Your task to perform on an android device: What's on my calendar tomorrow? Image 0: 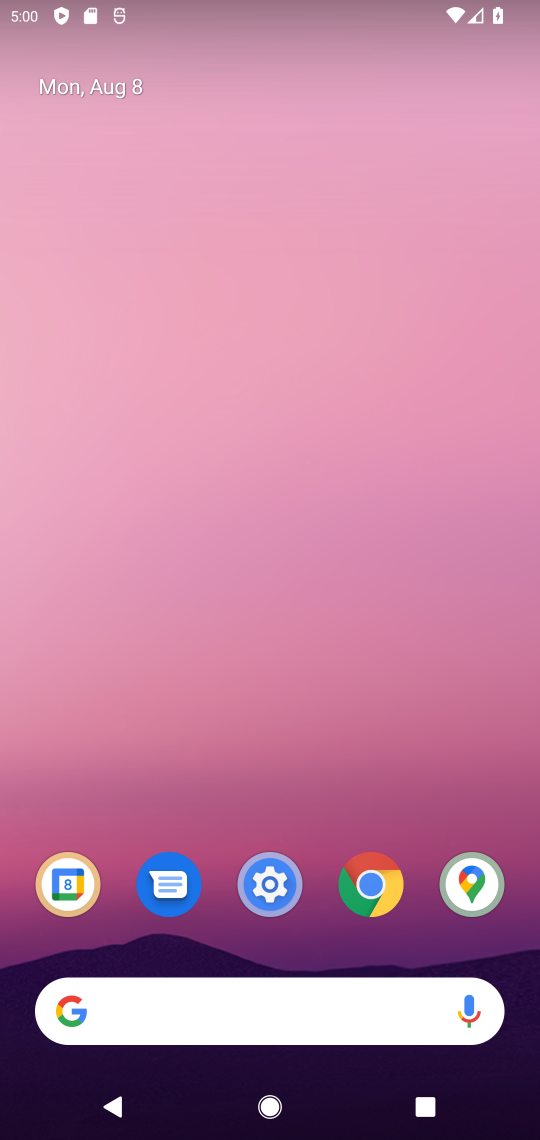
Step 0: click (77, 881)
Your task to perform on an android device: What's on my calendar tomorrow? Image 1: 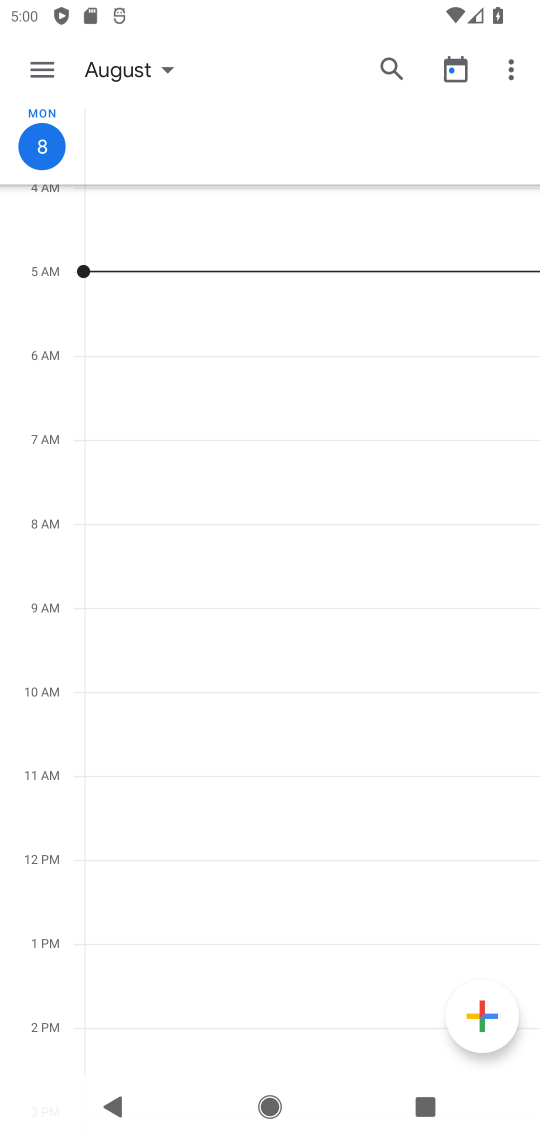
Step 1: task complete